Your task to perform on an android device: turn on priority inbox in the gmail app Image 0: 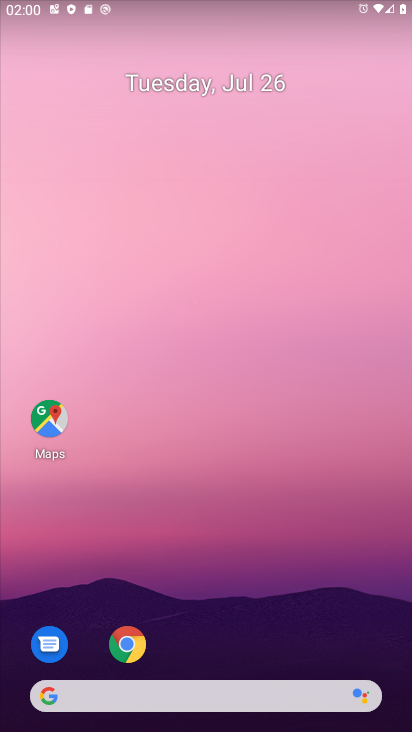
Step 0: drag from (250, 646) to (216, 253)
Your task to perform on an android device: turn on priority inbox in the gmail app Image 1: 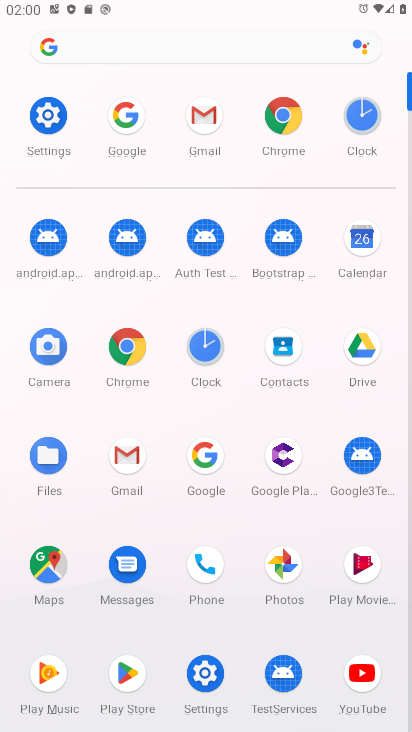
Step 1: click (199, 103)
Your task to perform on an android device: turn on priority inbox in the gmail app Image 2: 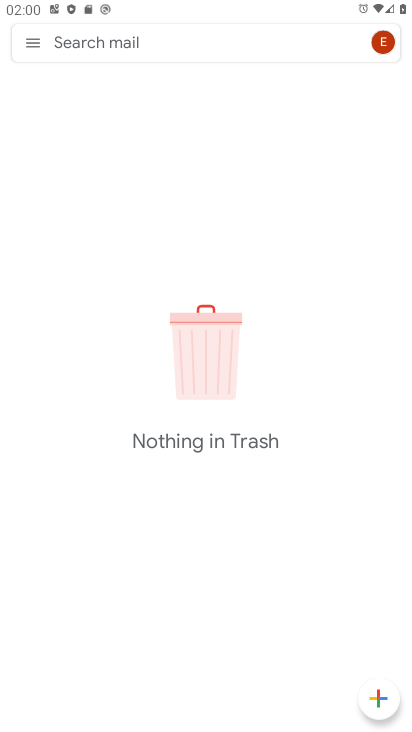
Step 2: click (31, 35)
Your task to perform on an android device: turn on priority inbox in the gmail app Image 3: 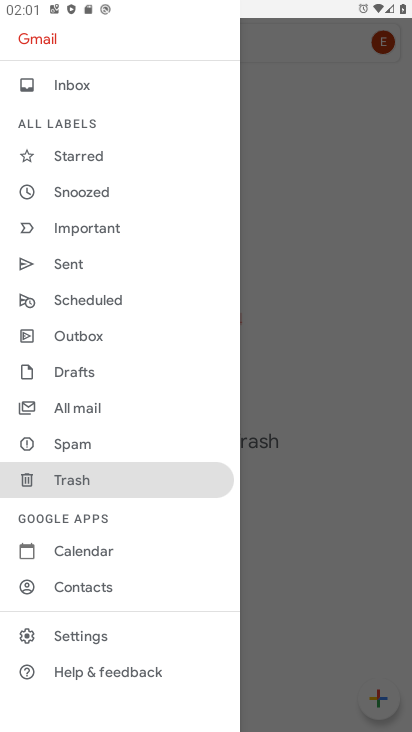
Step 3: click (91, 631)
Your task to perform on an android device: turn on priority inbox in the gmail app Image 4: 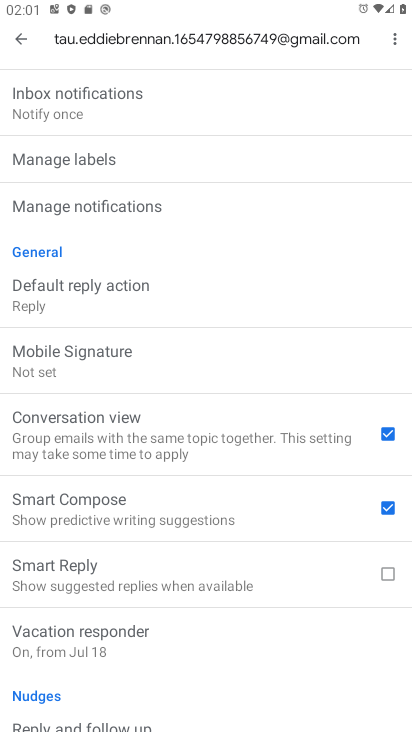
Step 4: click (12, 29)
Your task to perform on an android device: turn on priority inbox in the gmail app Image 5: 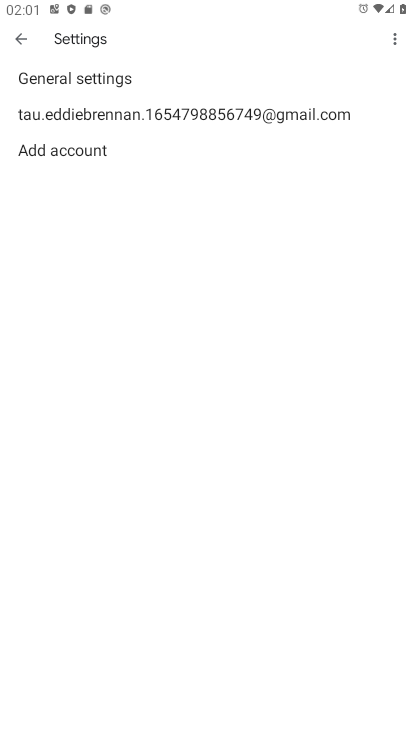
Step 5: click (65, 108)
Your task to perform on an android device: turn on priority inbox in the gmail app Image 6: 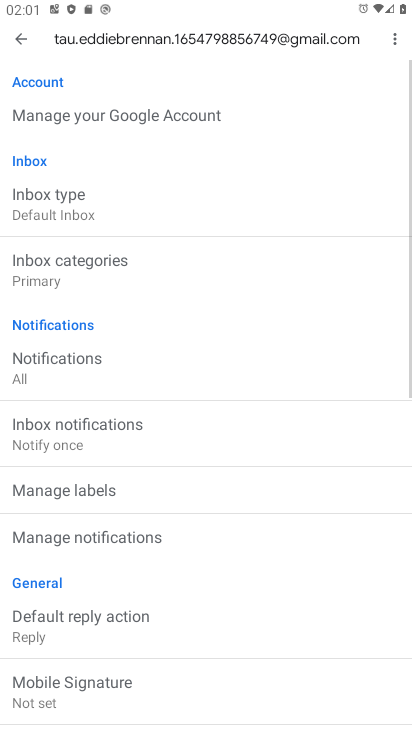
Step 6: drag from (151, 255) to (118, 487)
Your task to perform on an android device: turn on priority inbox in the gmail app Image 7: 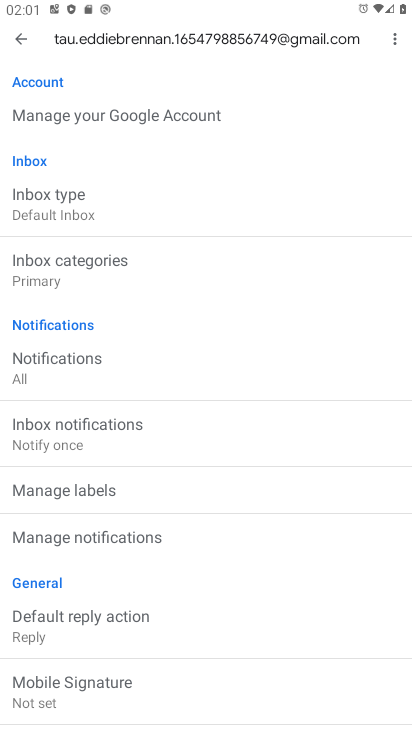
Step 7: click (88, 219)
Your task to perform on an android device: turn on priority inbox in the gmail app Image 8: 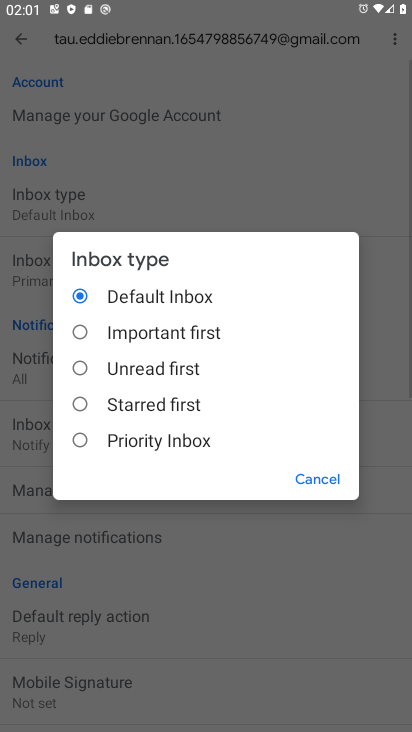
Step 8: click (115, 443)
Your task to perform on an android device: turn on priority inbox in the gmail app Image 9: 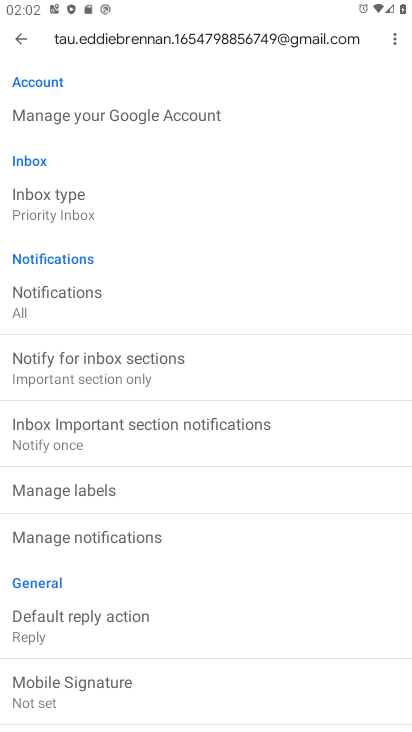
Step 9: task complete